Your task to perform on an android device: open app "Calculator" (install if not already installed) Image 0: 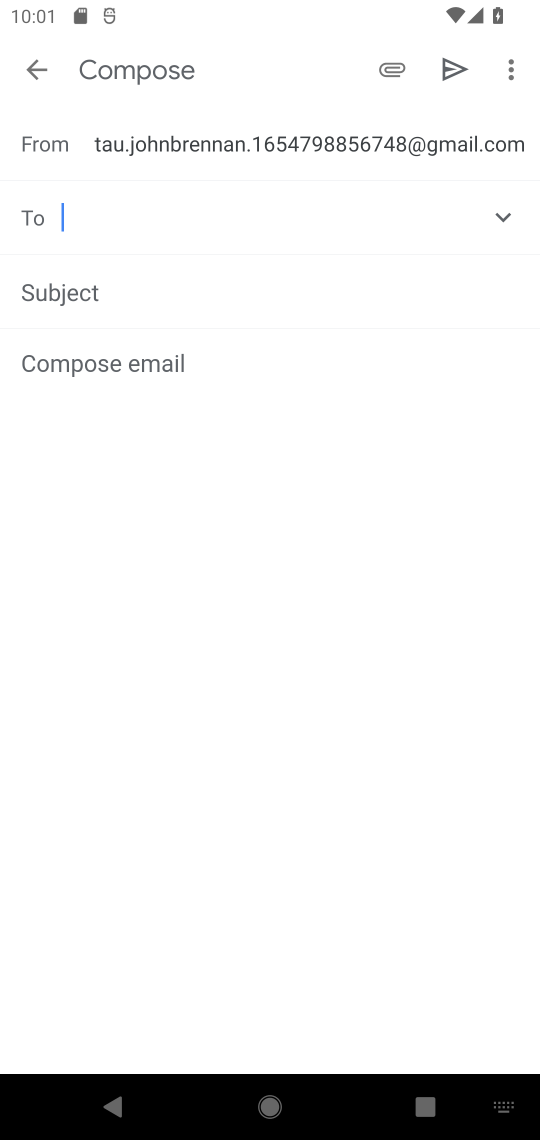
Step 0: press home button
Your task to perform on an android device: open app "Calculator" (install if not already installed) Image 1: 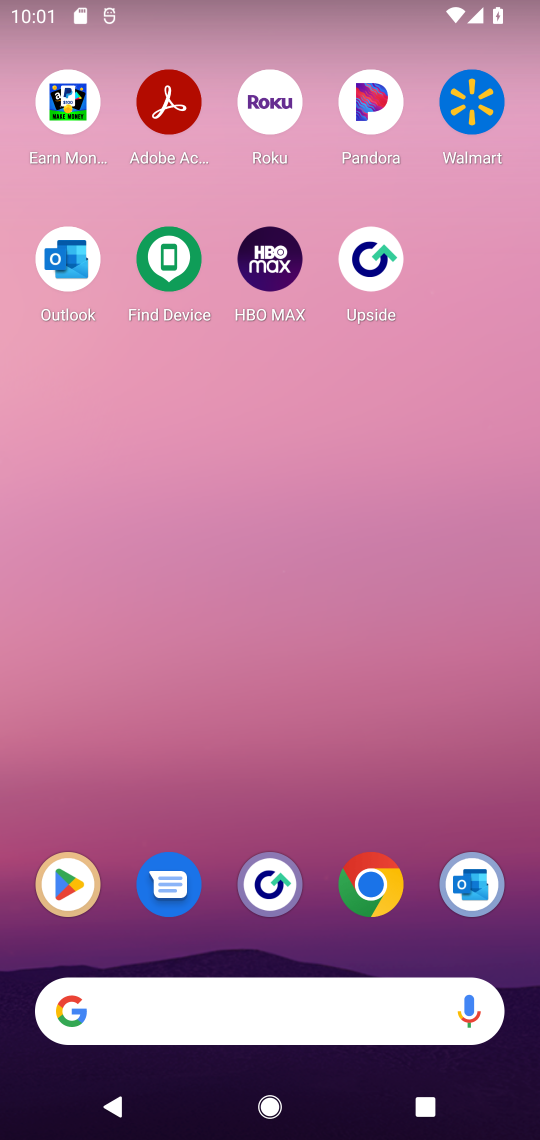
Step 1: drag from (220, 910) to (268, 356)
Your task to perform on an android device: open app "Calculator" (install if not already installed) Image 2: 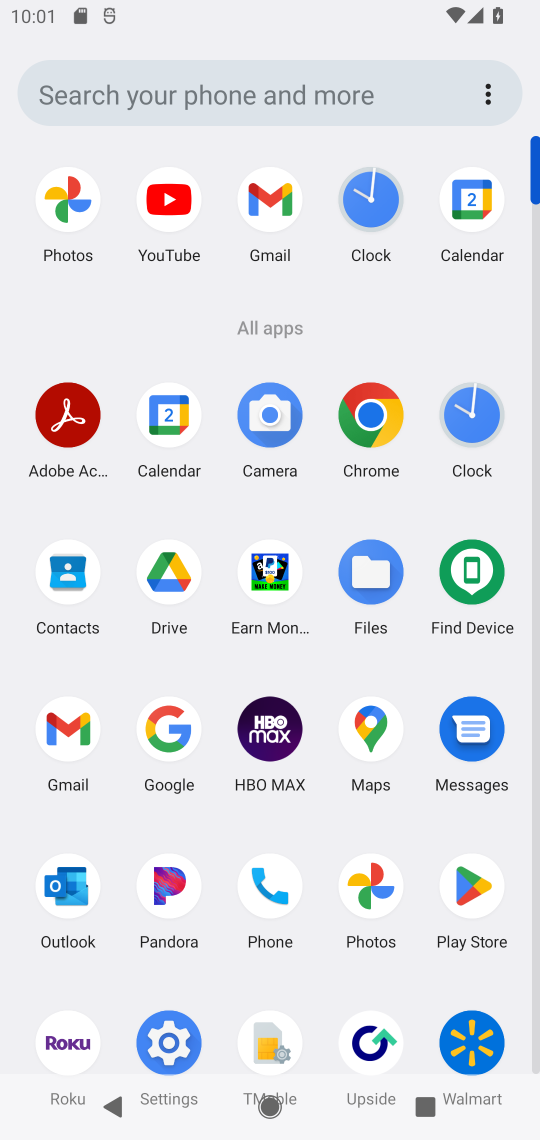
Step 2: click (467, 924)
Your task to perform on an android device: open app "Calculator" (install if not already installed) Image 3: 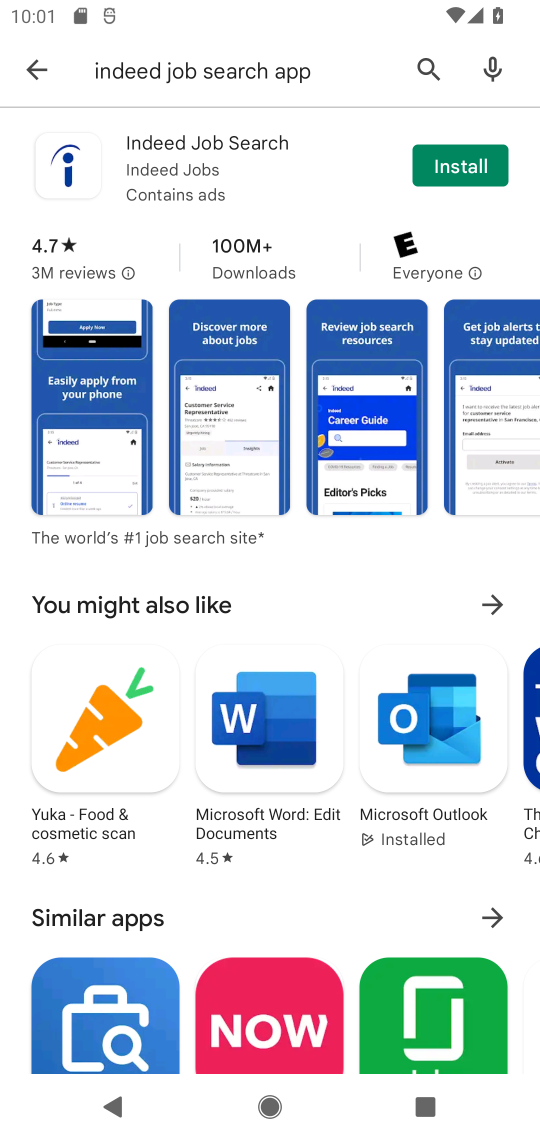
Step 3: click (231, 85)
Your task to perform on an android device: open app "Calculator" (install if not already installed) Image 4: 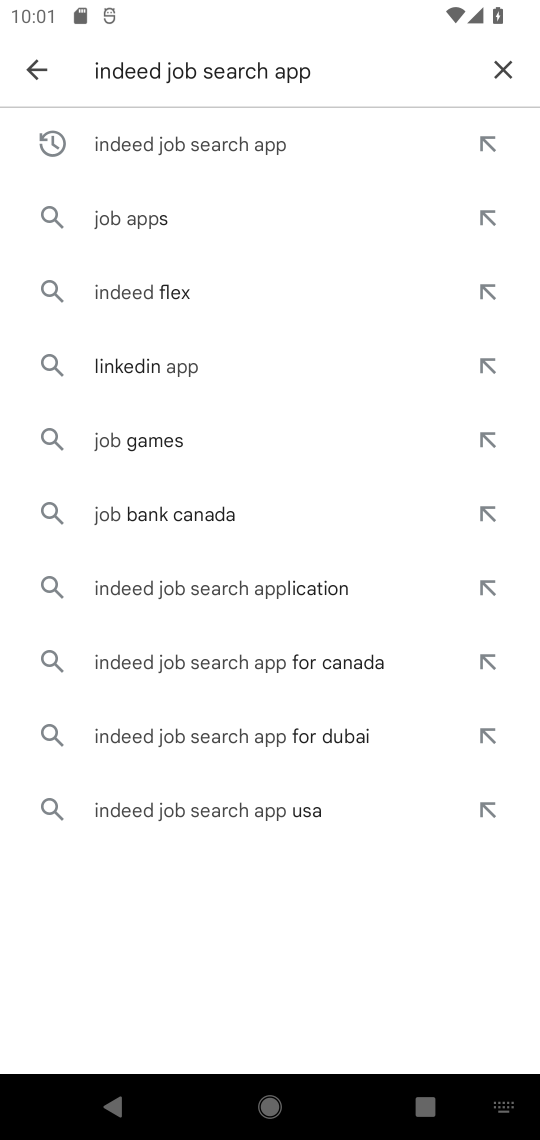
Step 4: click (503, 57)
Your task to perform on an android device: open app "Calculator" (install if not already installed) Image 5: 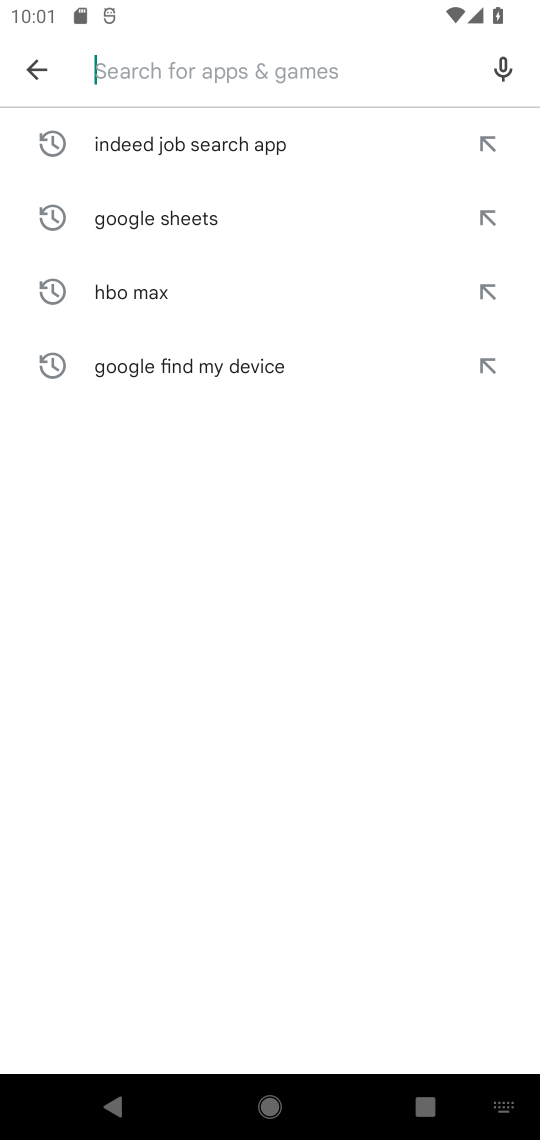
Step 5: type "calculator"
Your task to perform on an android device: open app "Calculator" (install if not already installed) Image 6: 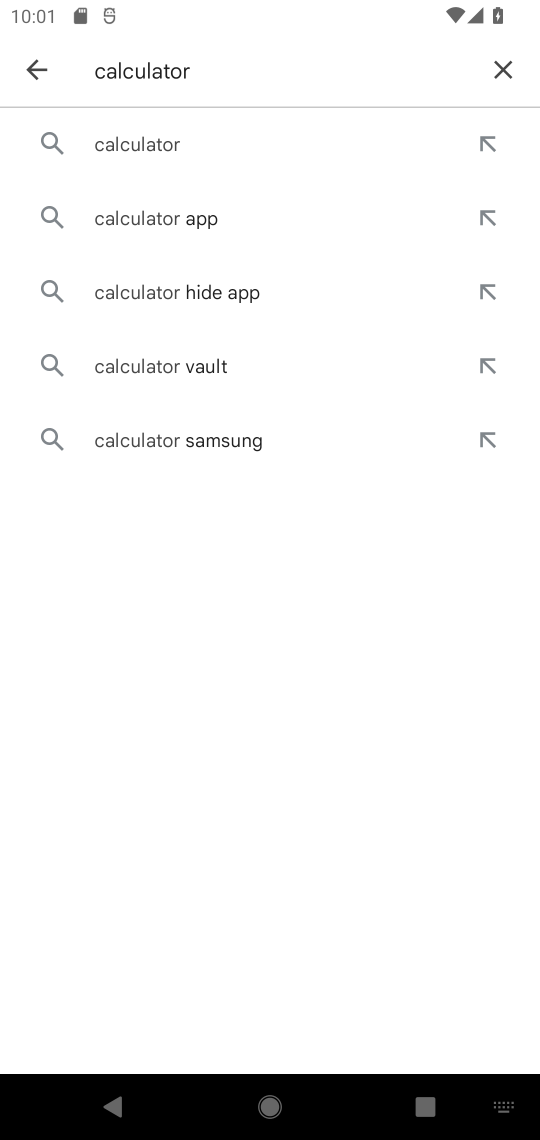
Step 6: click (148, 142)
Your task to perform on an android device: open app "Calculator" (install if not already installed) Image 7: 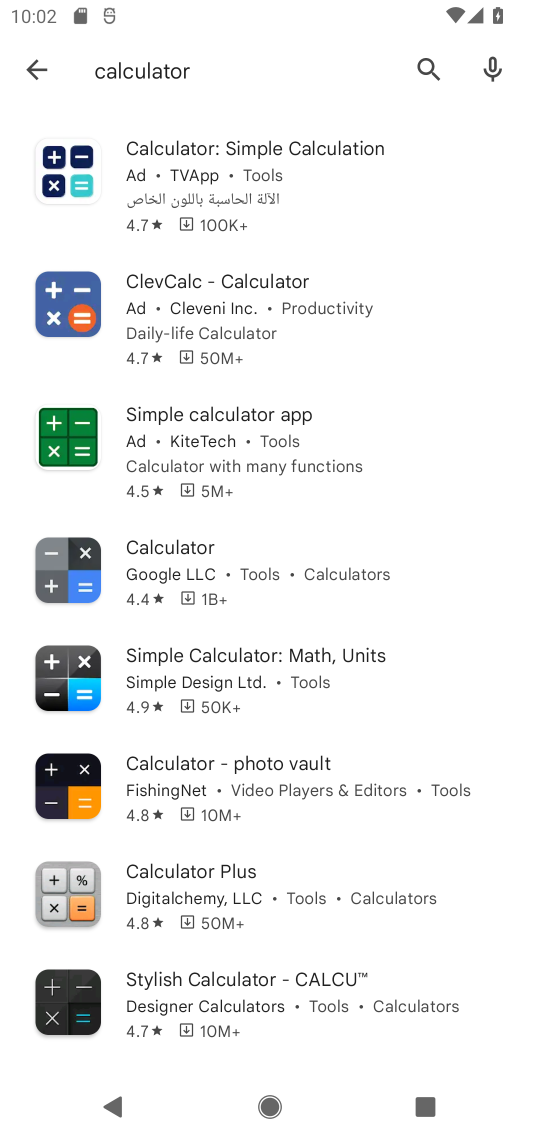
Step 7: click (173, 545)
Your task to perform on an android device: open app "Calculator" (install if not already installed) Image 8: 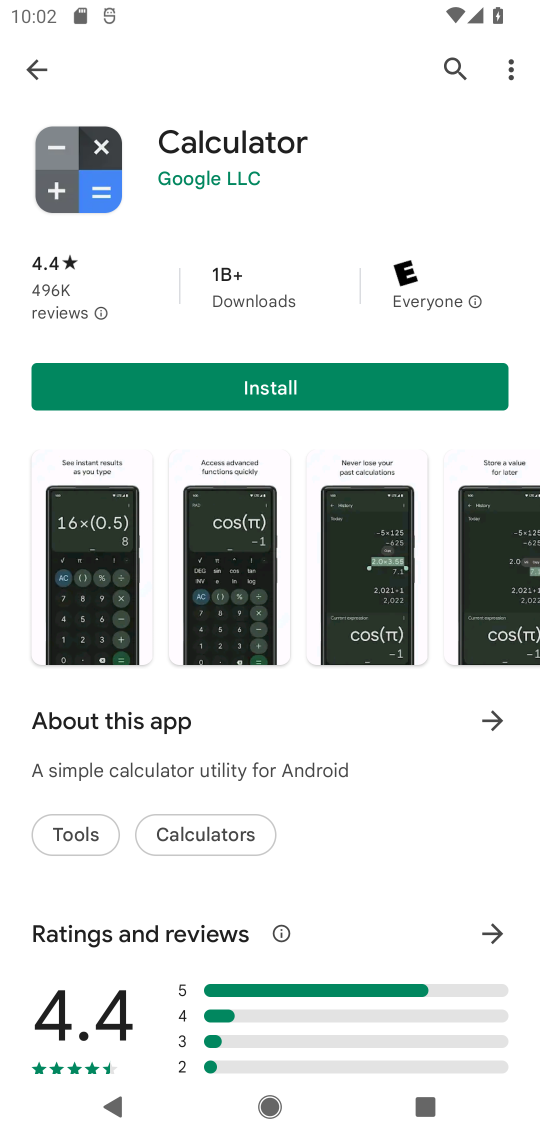
Step 8: click (289, 386)
Your task to perform on an android device: open app "Calculator" (install if not already installed) Image 9: 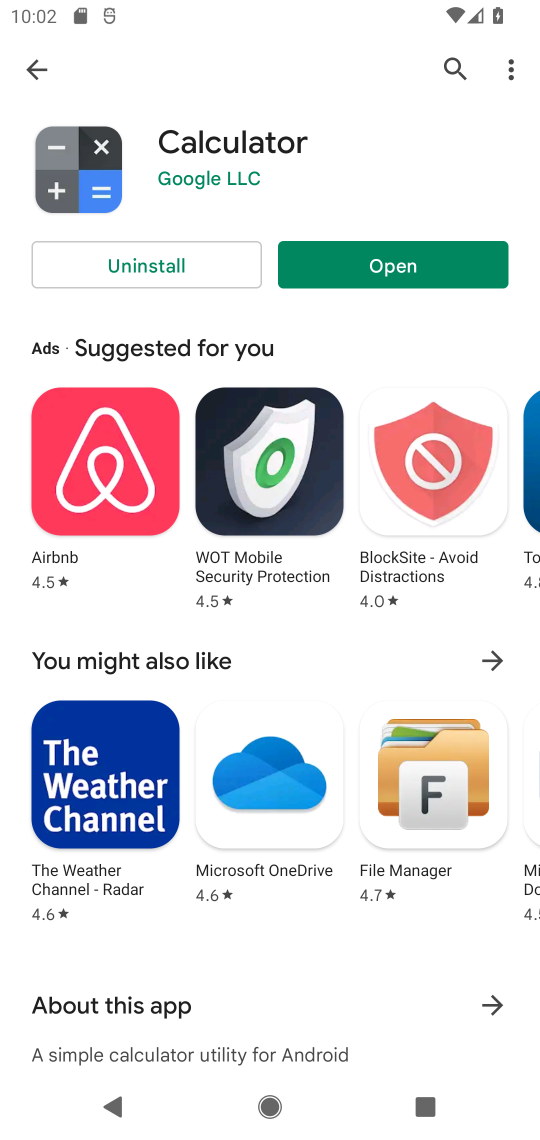
Step 9: click (469, 277)
Your task to perform on an android device: open app "Calculator" (install if not already installed) Image 10: 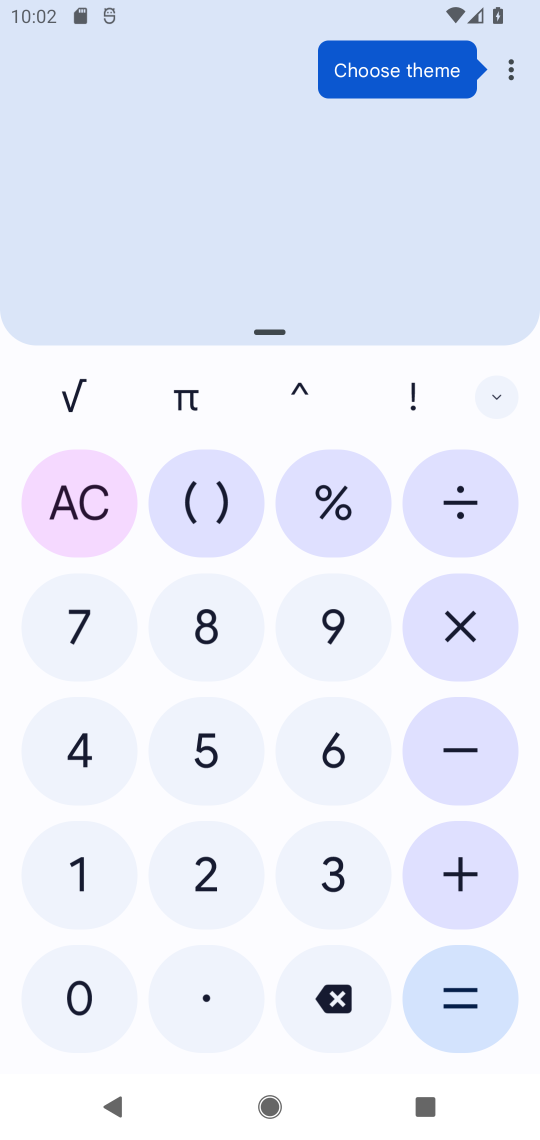
Step 10: task complete